Your task to perform on an android device: What's the weather today? Image 0: 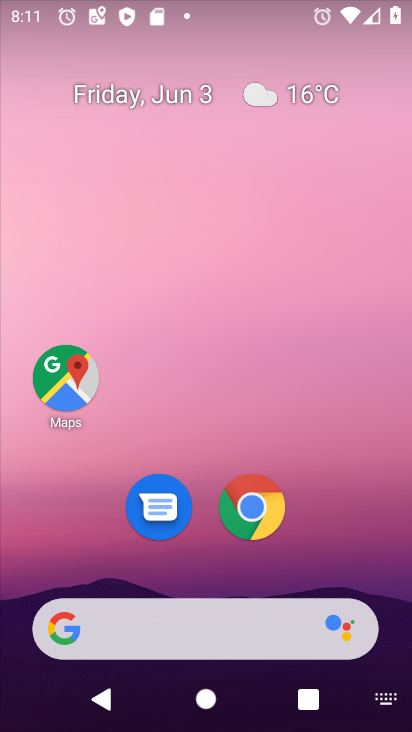
Step 0: press home button
Your task to perform on an android device: What's the weather today? Image 1: 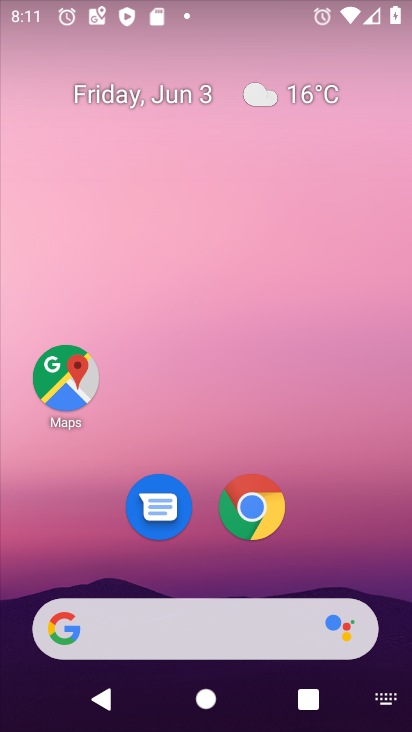
Step 1: click (314, 91)
Your task to perform on an android device: What's the weather today? Image 2: 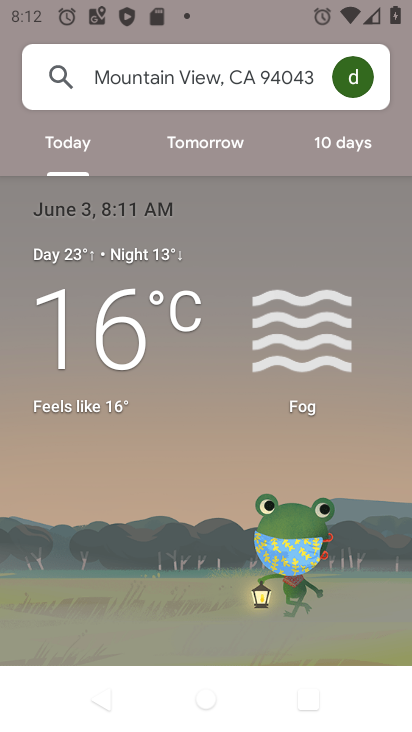
Step 2: task complete